Your task to perform on an android device: Search for "razer huntsman" on newegg.com, select the first entry, add it to the cart, then select checkout. Image 0: 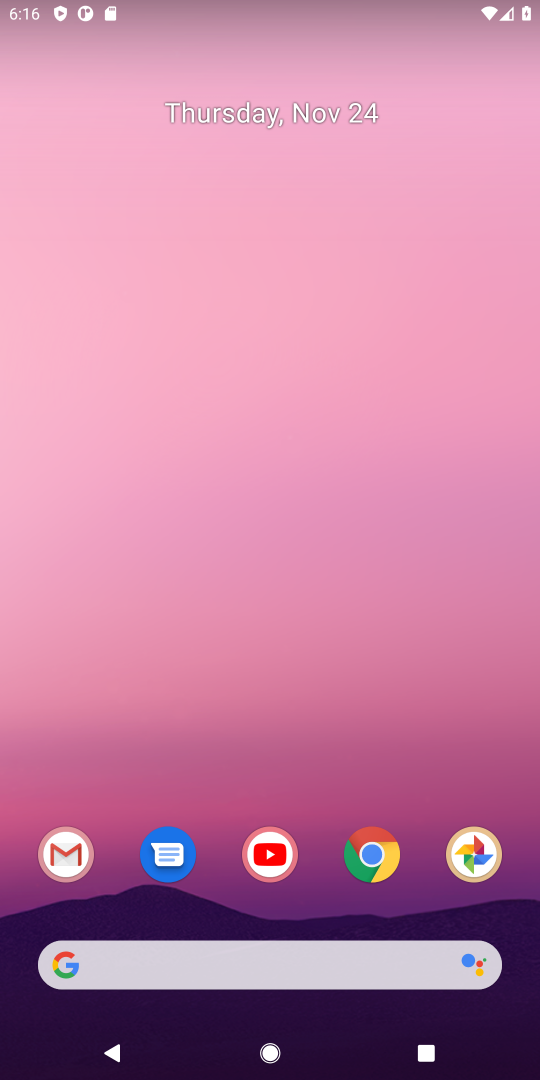
Step 0: click (373, 846)
Your task to perform on an android device: Search for "razer huntsman" on newegg.com, select the first entry, add it to the cart, then select checkout. Image 1: 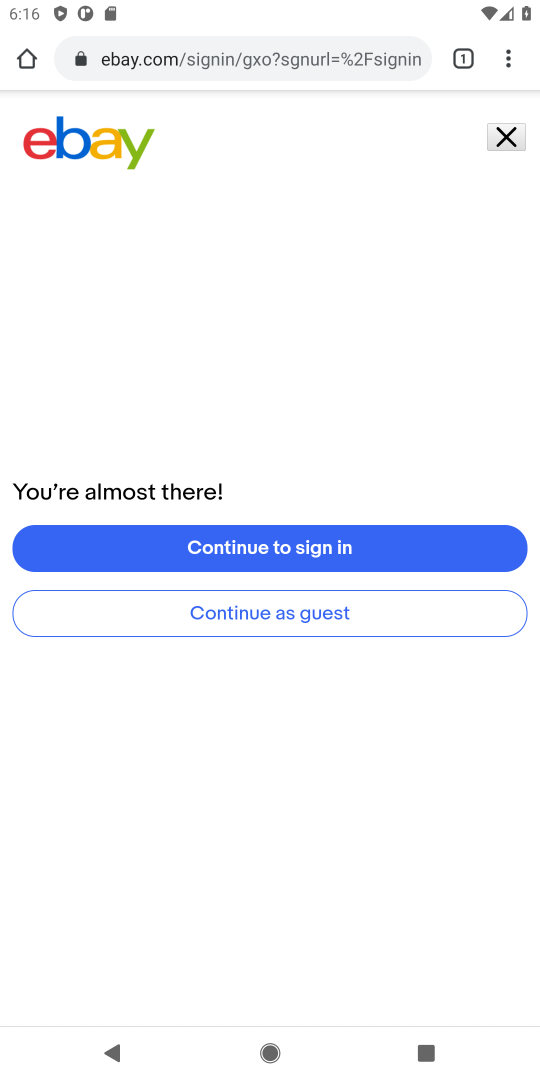
Step 1: click (298, 62)
Your task to perform on an android device: Search for "razer huntsman" on newegg.com, select the first entry, add it to the cart, then select checkout. Image 2: 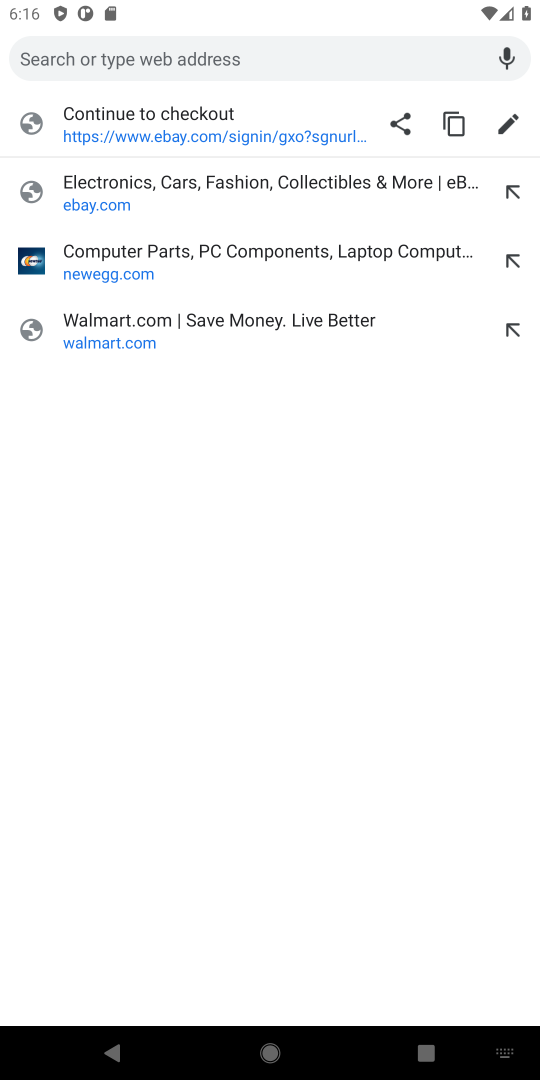
Step 2: click (89, 275)
Your task to perform on an android device: Search for "razer huntsman" on newegg.com, select the first entry, add it to the cart, then select checkout. Image 3: 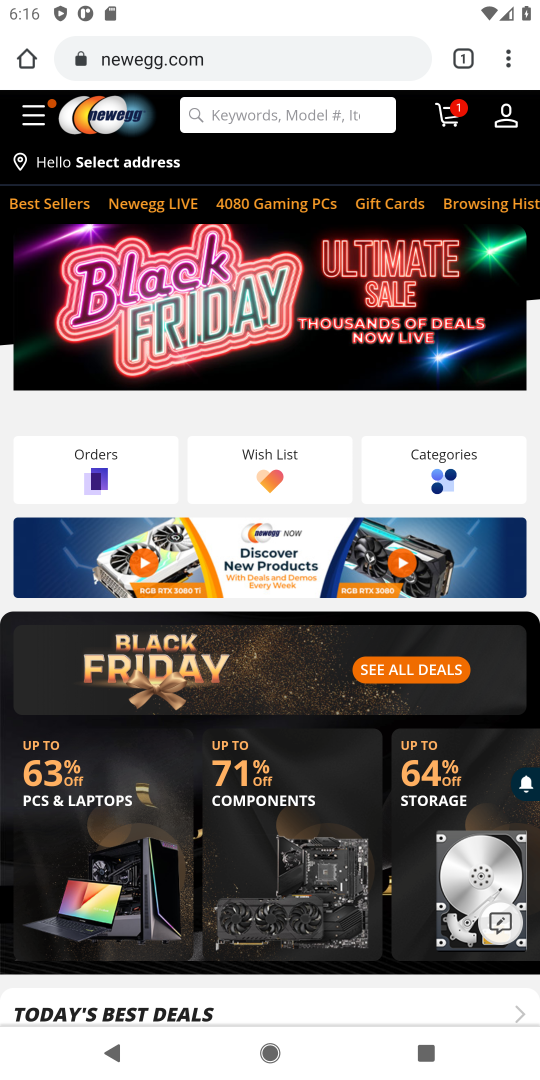
Step 3: click (208, 118)
Your task to perform on an android device: Search for "razer huntsman" on newegg.com, select the first entry, add it to the cart, then select checkout. Image 4: 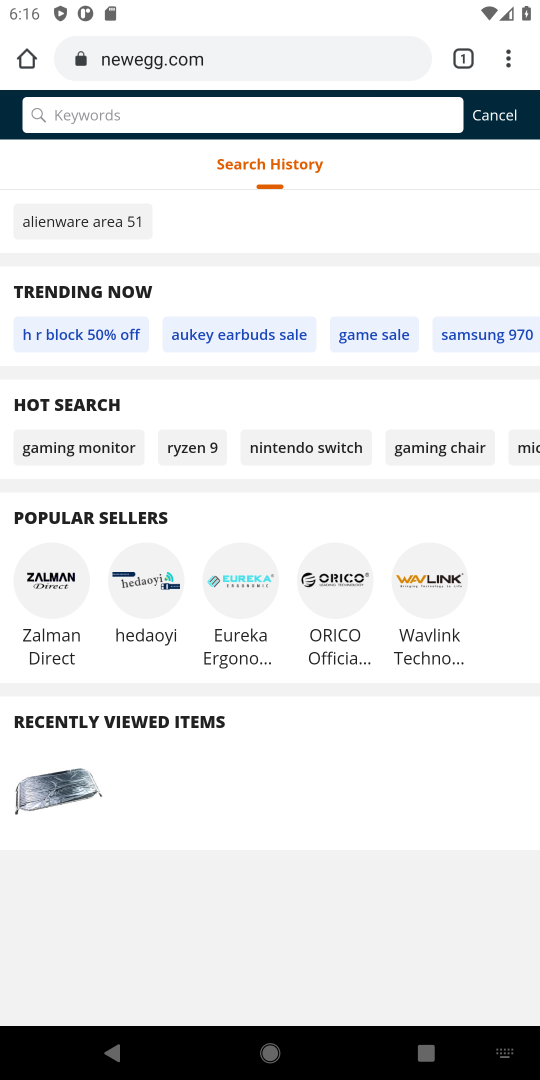
Step 4: type "razer huntsman"
Your task to perform on an android device: Search for "razer huntsman" on newegg.com, select the first entry, add it to the cart, then select checkout. Image 5: 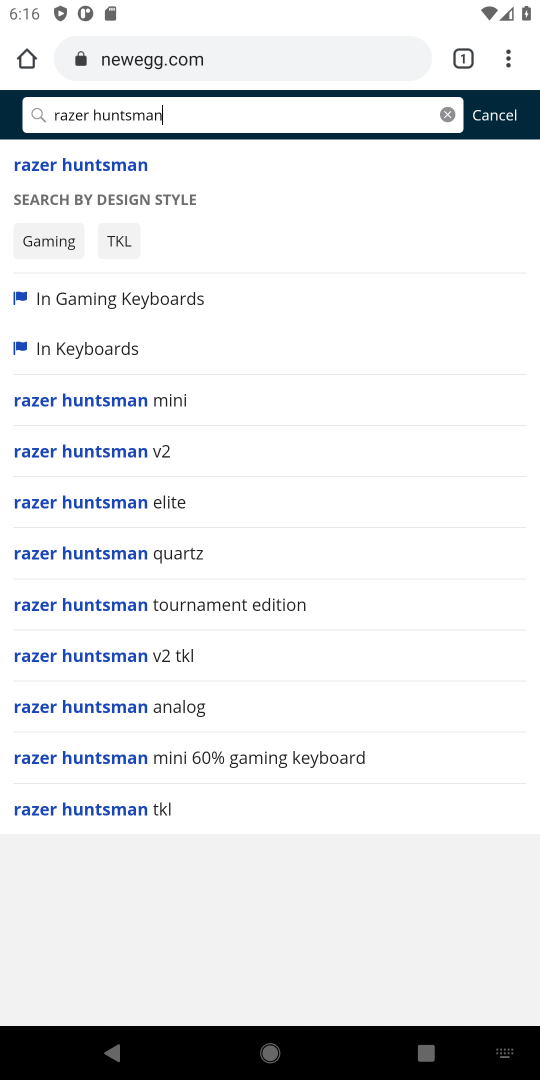
Step 5: click (74, 171)
Your task to perform on an android device: Search for "razer huntsman" on newegg.com, select the first entry, add it to the cart, then select checkout. Image 6: 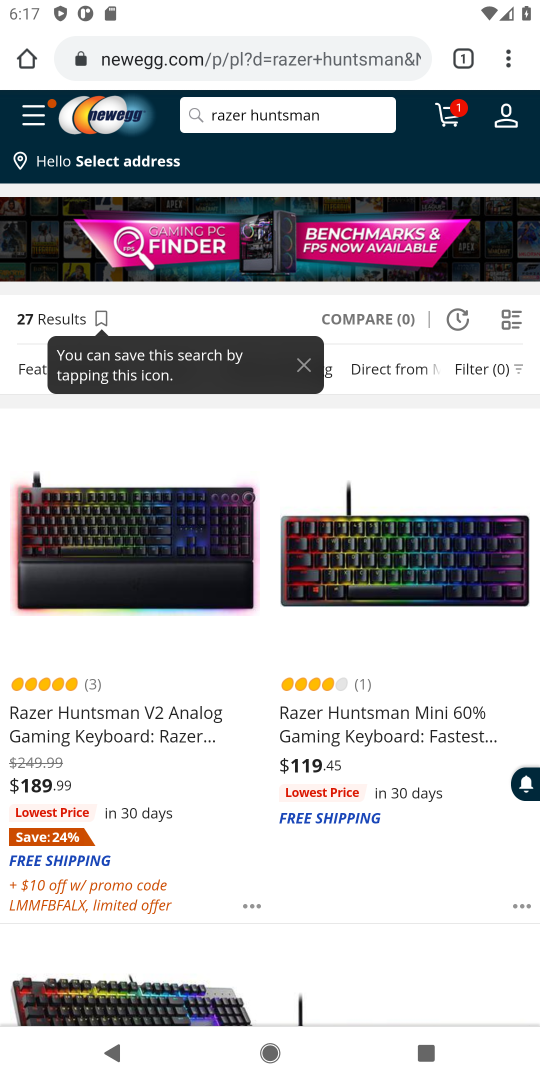
Step 6: click (97, 713)
Your task to perform on an android device: Search for "razer huntsman" on newegg.com, select the first entry, add it to the cart, then select checkout. Image 7: 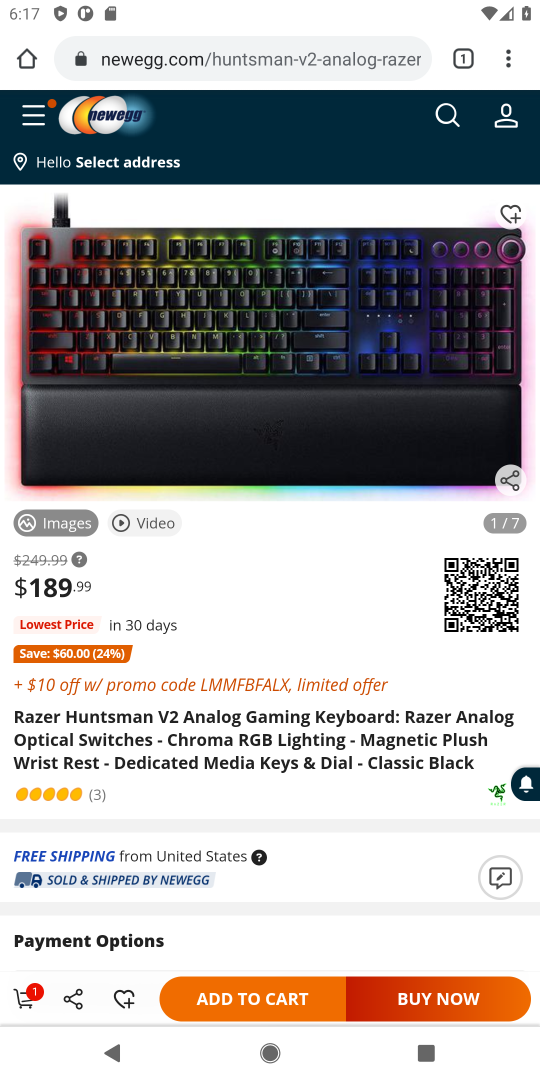
Step 7: click (254, 999)
Your task to perform on an android device: Search for "razer huntsman" on newegg.com, select the first entry, add it to the cart, then select checkout. Image 8: 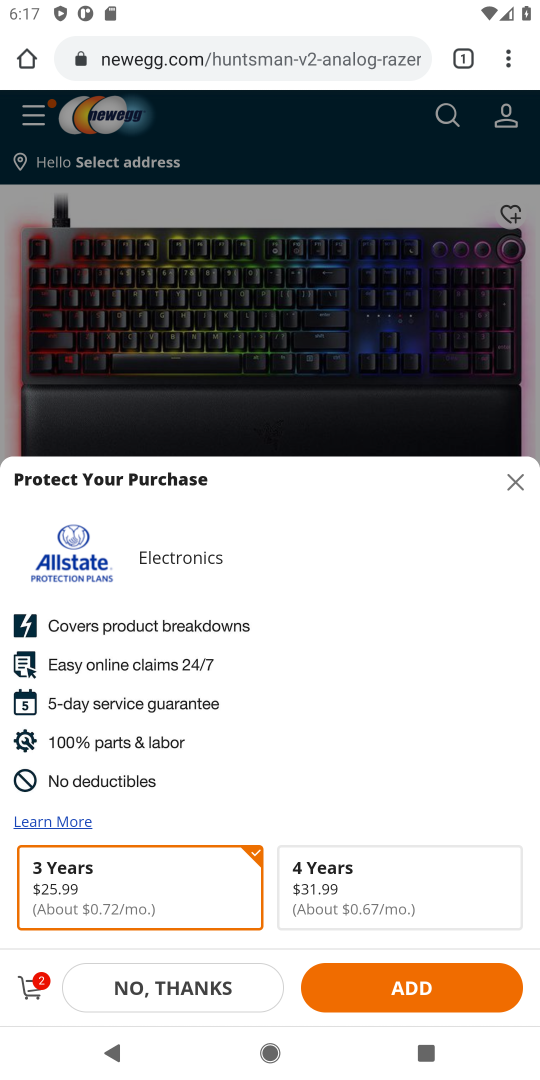
Step 8: click (36, 983)
Your task to perform on an android device: Search for "razer huntsman" on newegg.com, select the first entry, add it to the cart, then select checkout. Image 9: 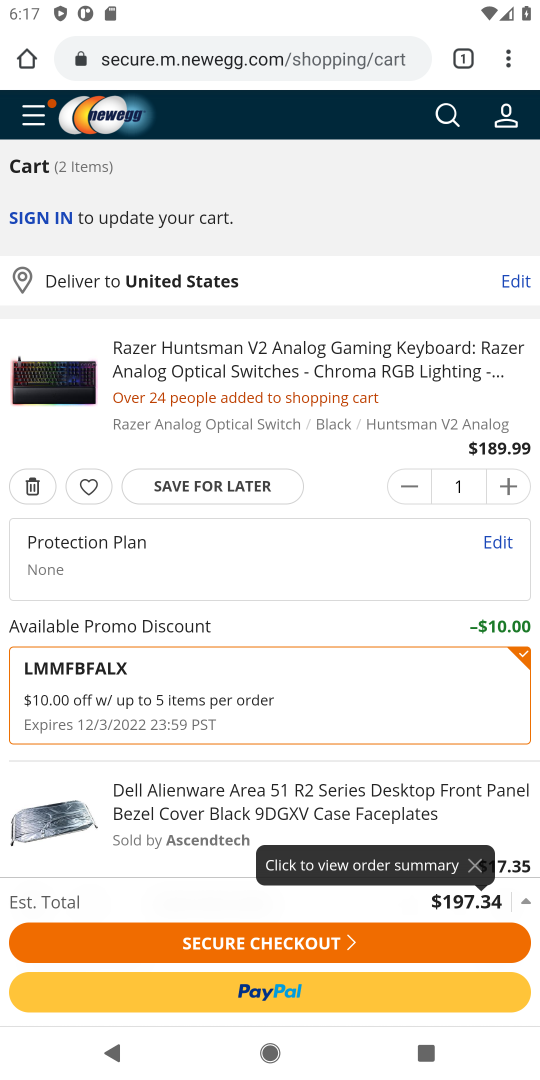
Step 9: click (254, 941)
Your task to perform on an android device: Search for "razer huntsman" on newegg.com, select the first entry, add it to the cart, then select checkout. Image 10: 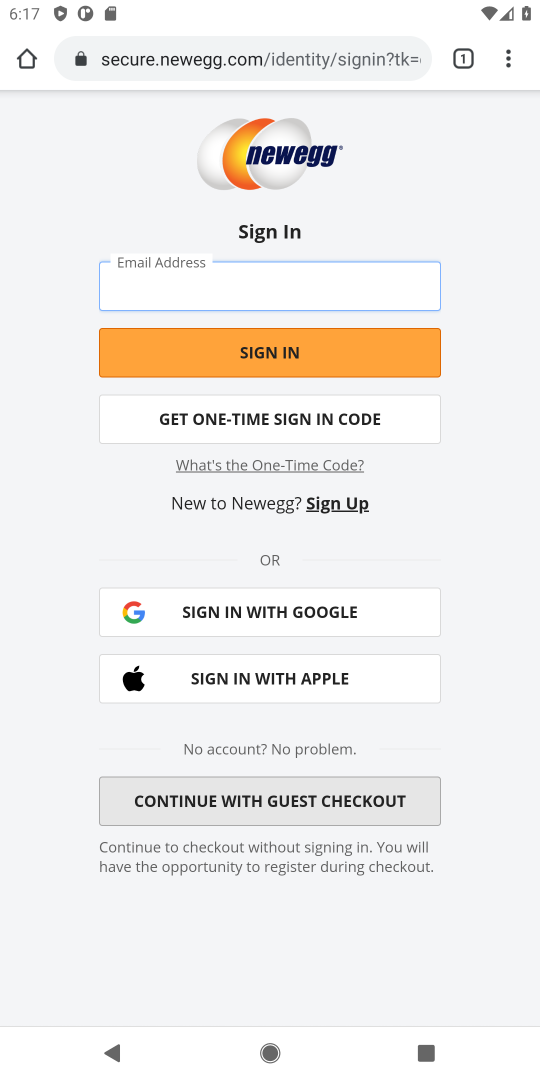
Step 10: task complete